Your task to perform on an android device: turn off priority inbox in the gmail app Image 0: 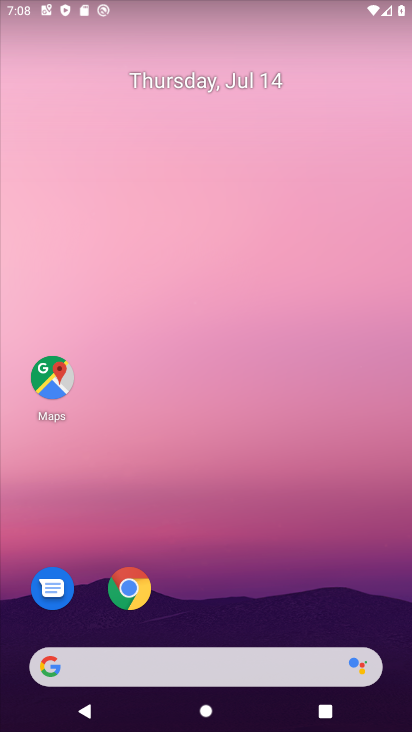
Step 0: drag from (360, 614) to (263, 33)
Your task to perform on an android device: turn off priority inbox in the gmail app Image 1: 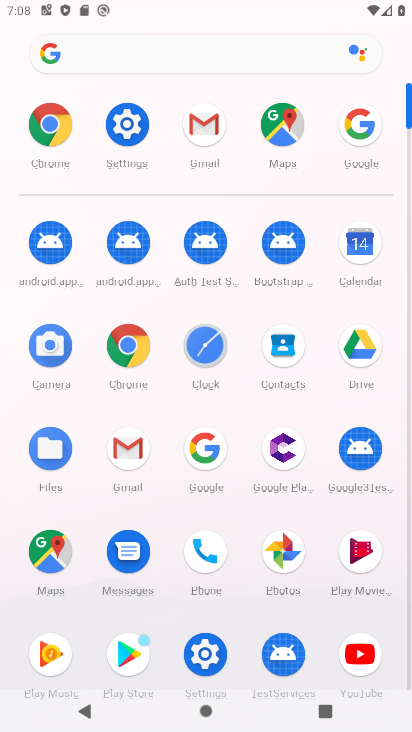
Step 1: click (117, 457)
Your task to perform on an android device: turn off priority inbox in the gmail app Image 2: 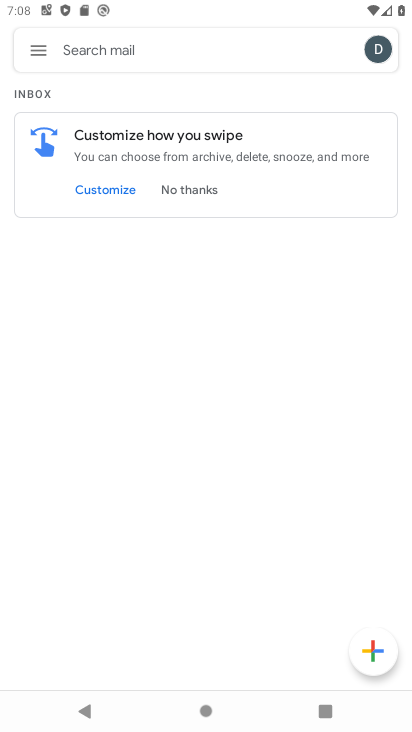
Step 2: click (36, 47)
Your task to perform on an android device: turn off priority inbox in the gmail app Image 3: 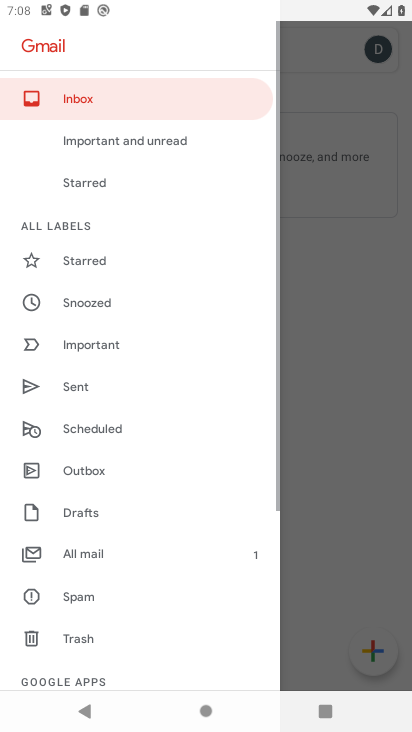
Step 3: drag from (75, 659) to (47, 94)
Your task to perform on an android device: turn off priority inbox in the gmail app Image 4: 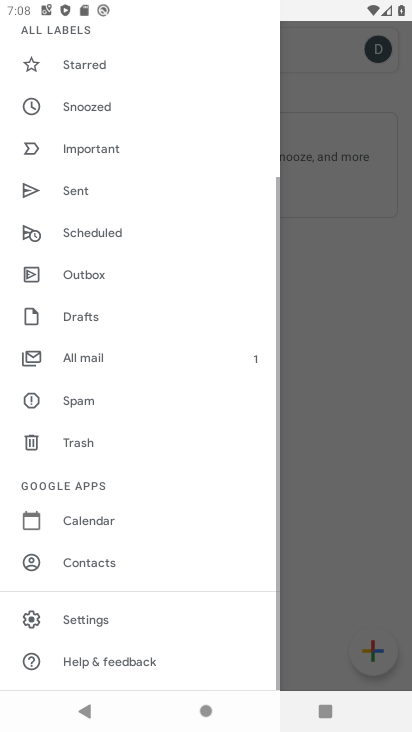
Step 4: click (113, 619)
Your task to perform on an android device: turn off priority inbox in the gmail app Image 5: 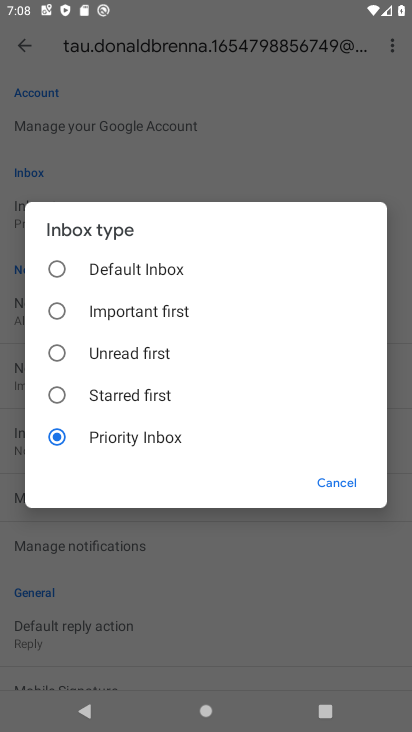
Step 5: click (71, 261)
Your task to perform on an android device: turn off priority inbox in the gmail app Image 6: 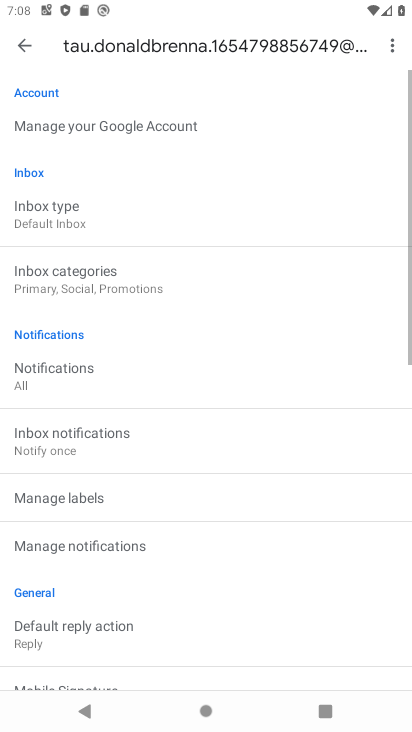
Step 6: task complete